Your task to perform on an android device: turn notification dots on Image 0: 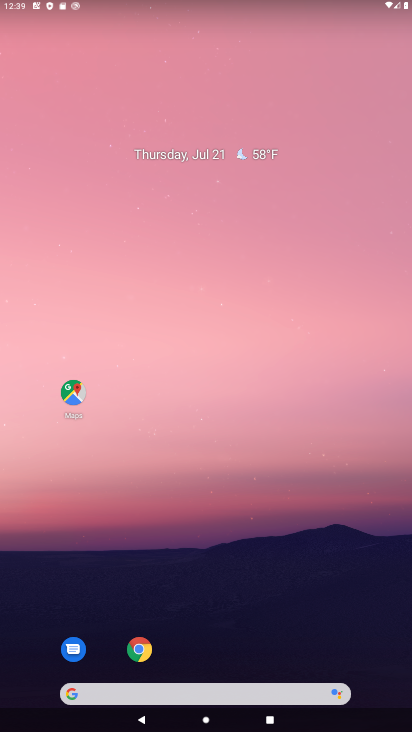
Step 0: drag from (369, 668) to (321, 121)
Your task to perform on an android device: turn notification dots on Image 1: 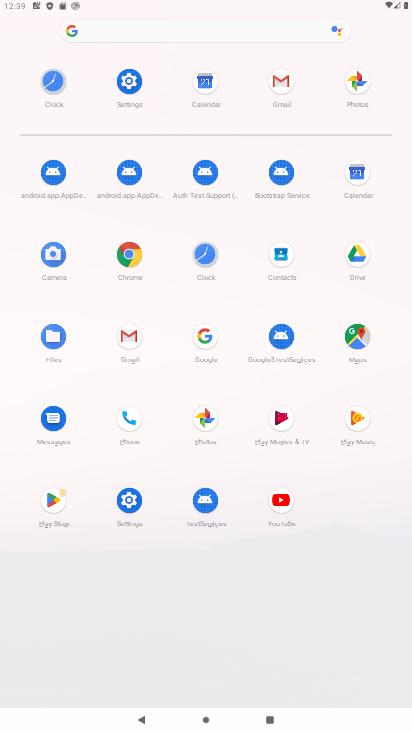
Step 1: click (127, 497)
Your task to perform on an android device: turn notification dots on Image 2: 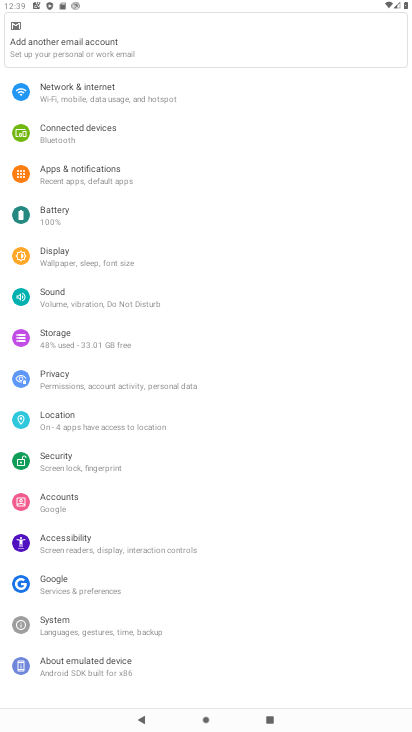
Step 2: click (79, 169)
Your task to perform on an android device: turn notification dots on Image 3: 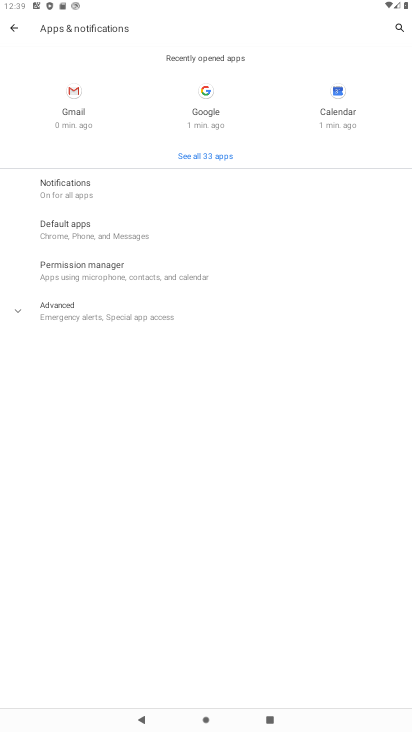
Step 3: click (71, 188)
Your task to perform on an android device: turn notification dots on Image 4: 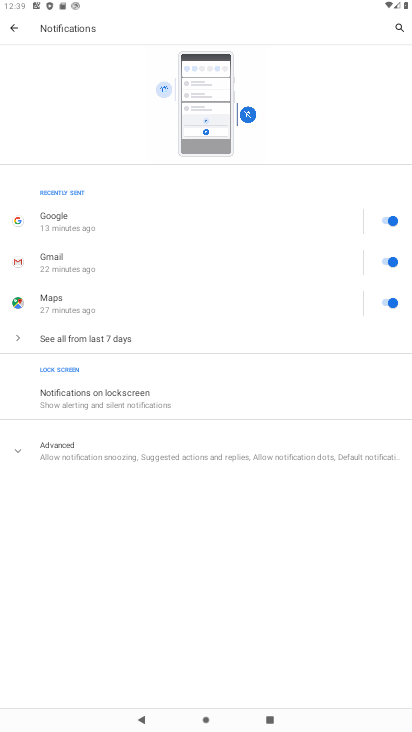
Step 4: click (24, 448)
Your task to perform on an android device: turn notification dots on Image 5: 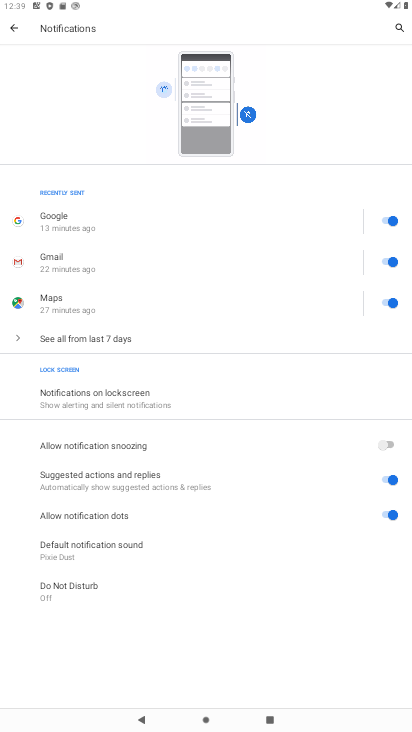
Step 5: task complete